Your task to perform on an android device: check android version Image 0: 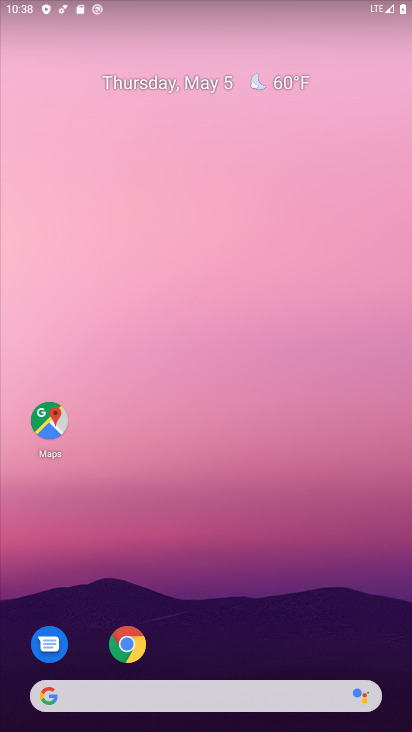
Step 0: drag from (380, 635) to (341, 191)
Your task to perform on an android device: check android version Image 1: 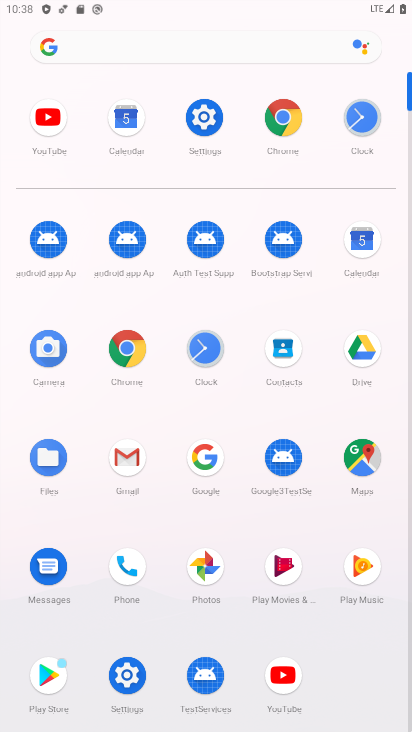
Step 1: click (203, 128)
Your task to perform on an android device: check android version Image 2: 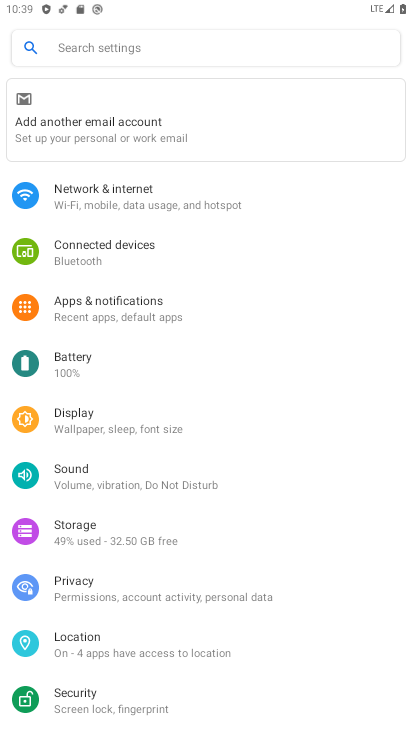
Step 2: drag from (274, 657) to (242, 253)
Your task to perform on an android device: check android version Image 3: 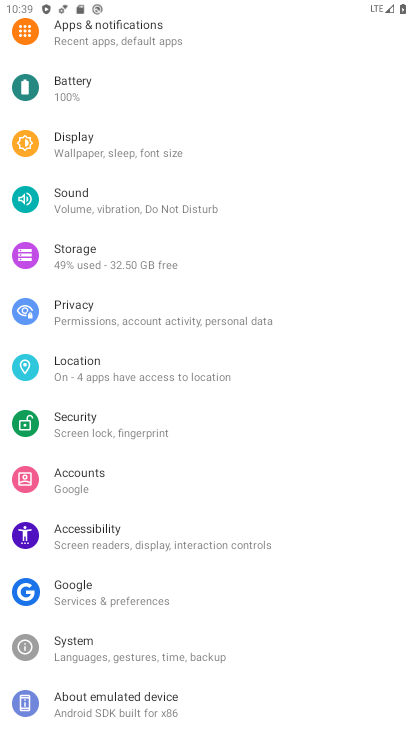
Step 3: drag from (277, 645) to (249, 324)
Your task to perform on an android device: check android version Image 4: 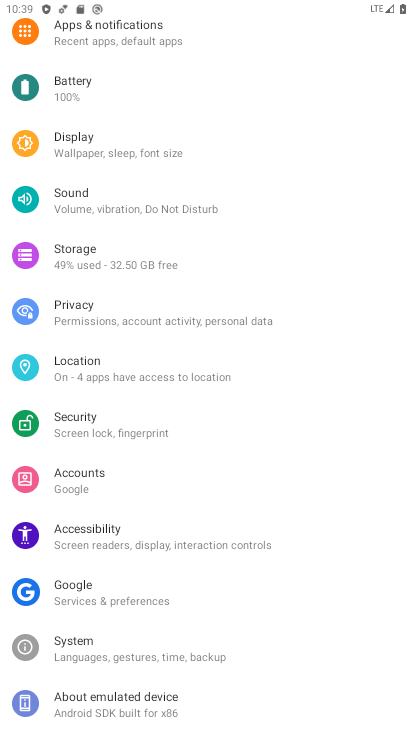
Step 4: click (143, 698)
Your task to perform on an android device: check android version Image 5: 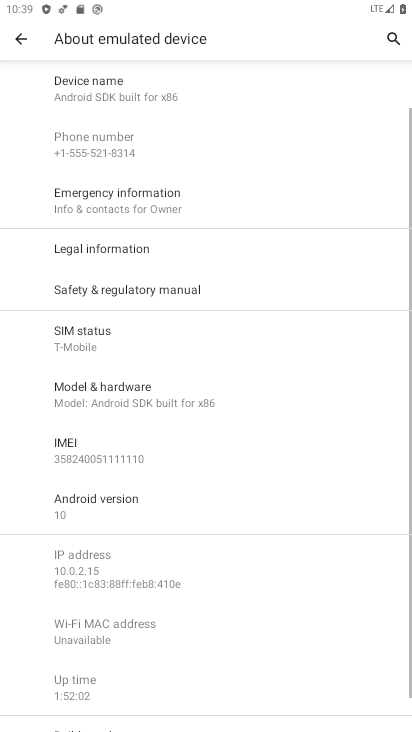
Step 5: task complete